Your task to perform on an android device: add a contact in the contacts app Image 0: 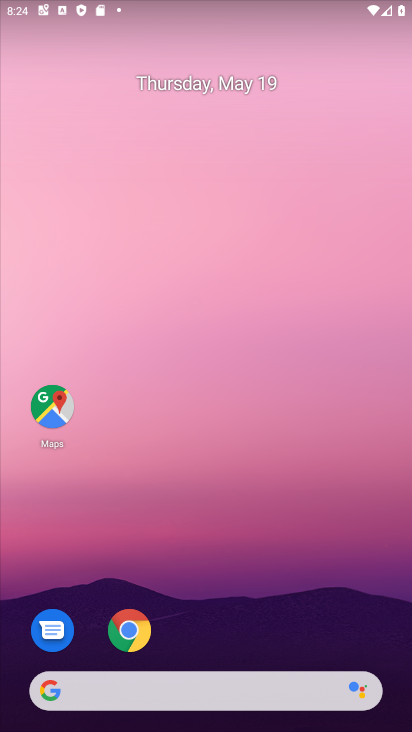
Step 0: drag from (387, 631) to (320, 107)
Your task to perform on an android device: add a contact in the contacts app Image 1: 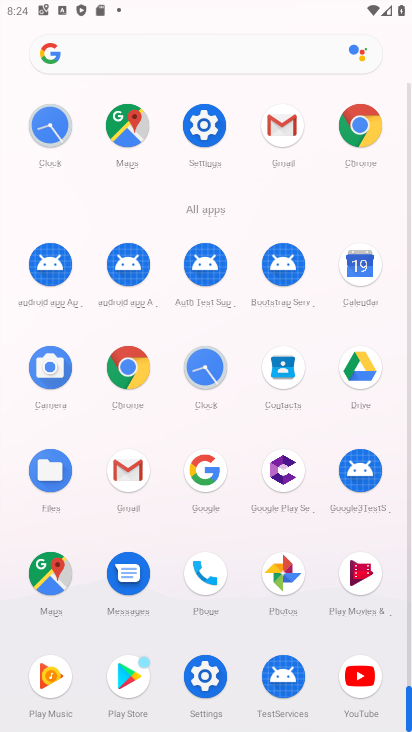
Step 1: click (282, 363)
Your task to perform on an android device: add a contact in the contacts app Image 2: 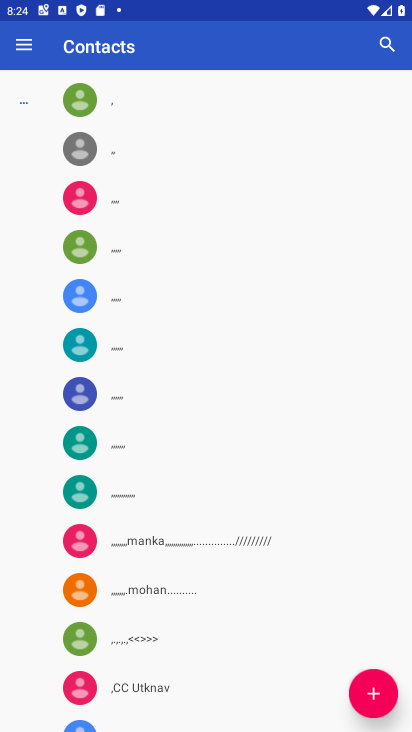
Step 2: click (367, 696)
Your task to perform on an android device: add a contact in the contacts app Image 3: 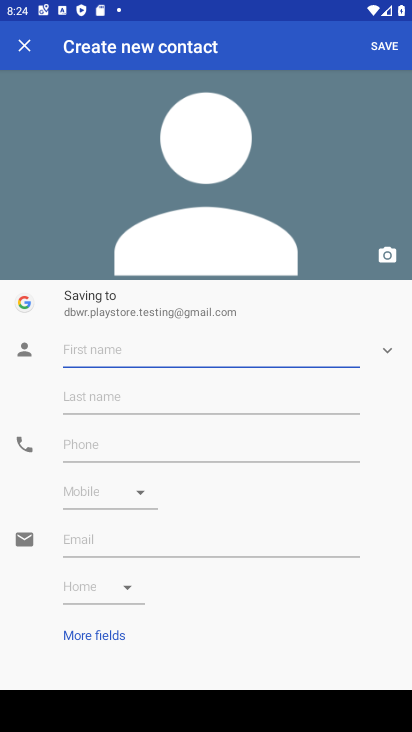
Step 3: type "ouioyurff"
Your task to perform on an android device: add a contact in the contacts app Image 4: 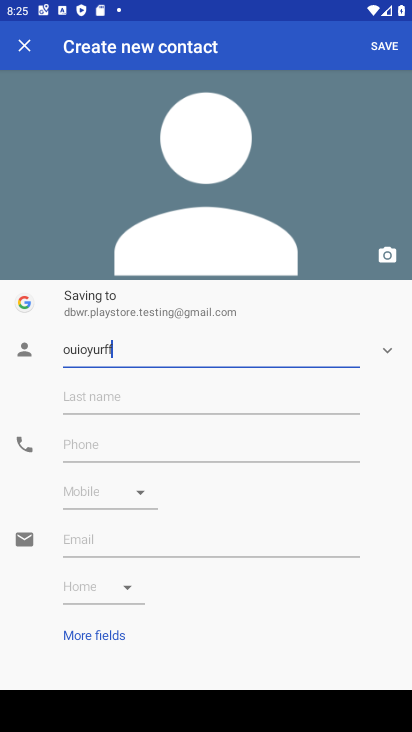
Step 4: click (84, 442)
Your task to perform on an android device: add a contact in the contacts app Image 5: 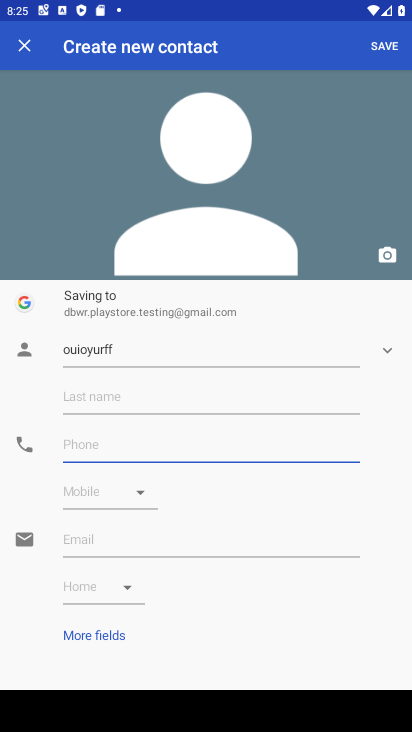
Step 5: type "9804747333"
Your task to perform on an android device: add a contact in the contacts app Image 6: 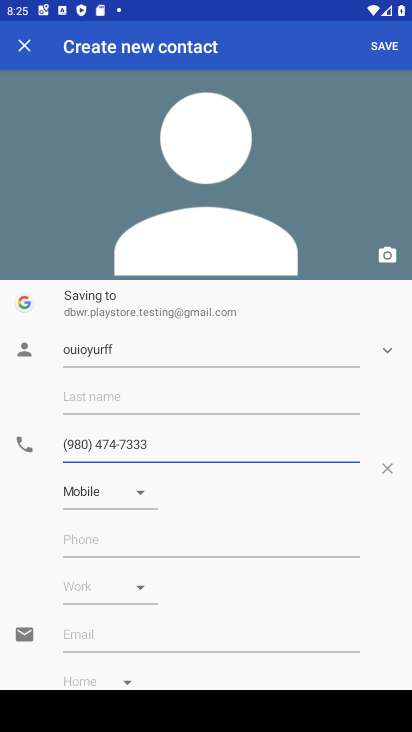
Step 6: click (136, 494)
Your task to perform on an android device: add a contact in the contacts app Image 7: 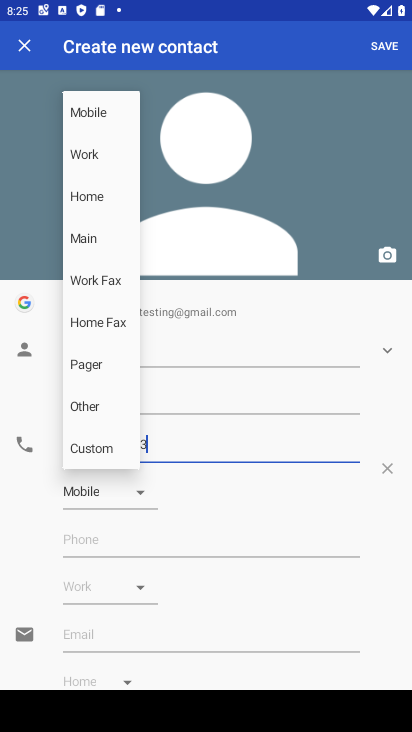
Step 7: click (89, 153)
Your task to perform on an android device: add a contact in the contacts app Image 8: 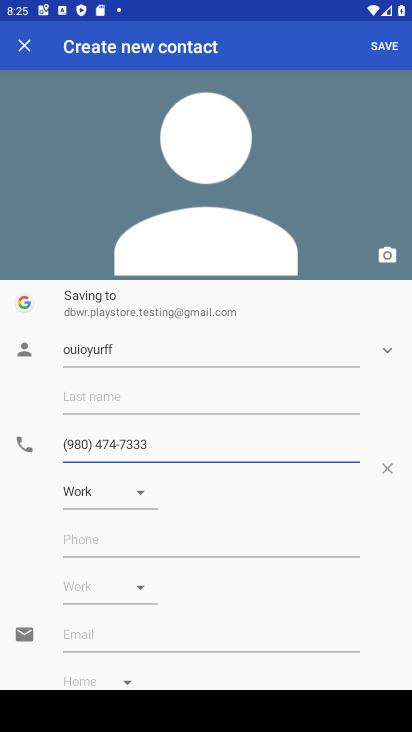
Step 8: click (385, 38)
Your task to perform on an android device: add a contact in the contacts app Image 9: 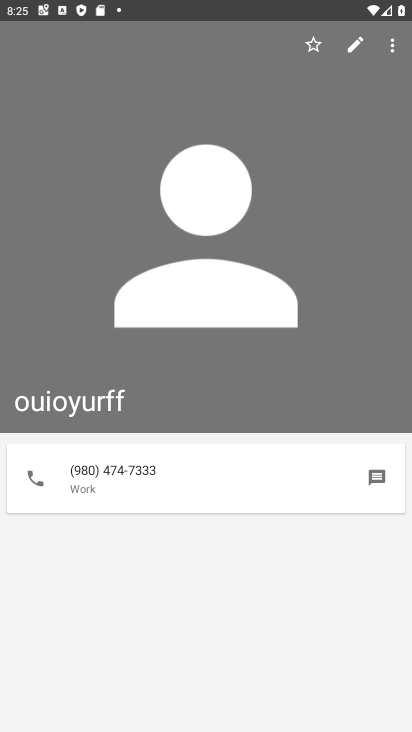
Step 9: task complete